Your task to perform on an android device: Do I have any events today? Image 0: 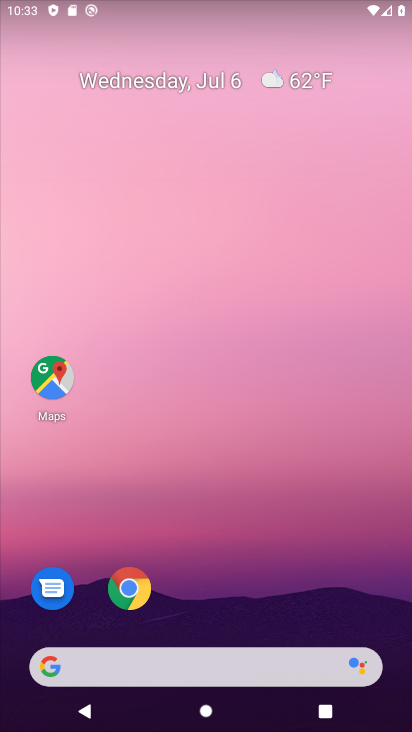
Step 0: drag from (343, 604) to (319, 101)
Your task to perform on an android device: Do I have any events today? Image 1: 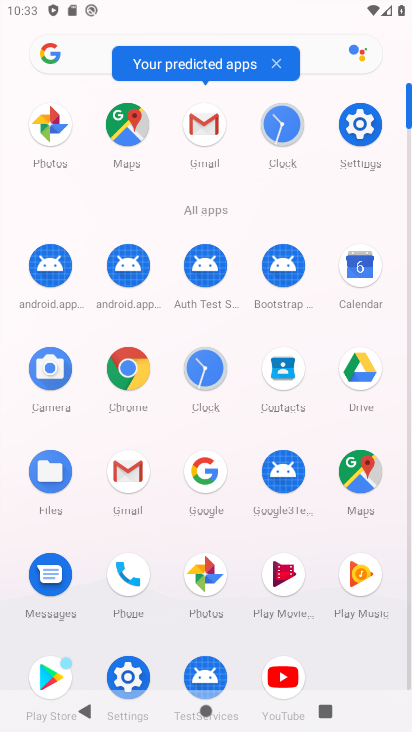
Step 1: click (359, 271)
Your task to perform on an android device: Do I have any events today? Image 2: 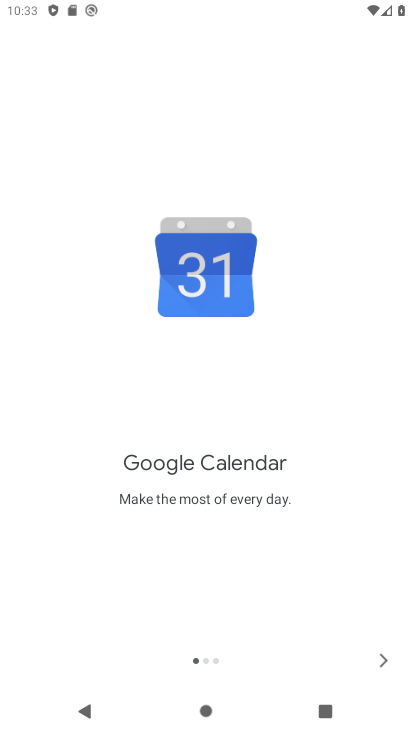
Step 2: click (382, 658)
Your task to perform on an android device: Do I have any events today? Image 3: 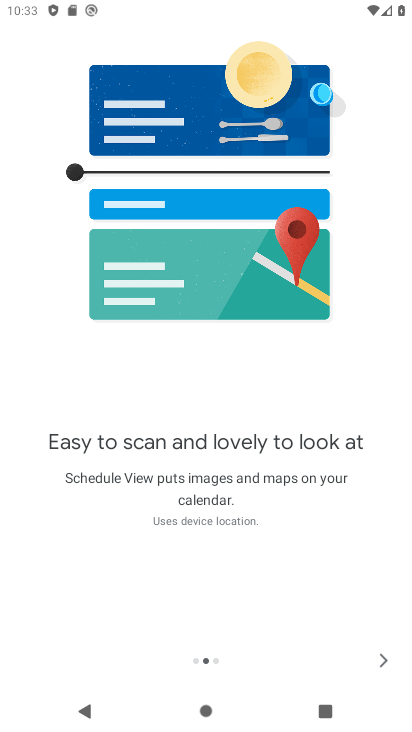
Step 3: click (378, 659)
Your task to perform on an android device: Do I have any events today? Image 4: 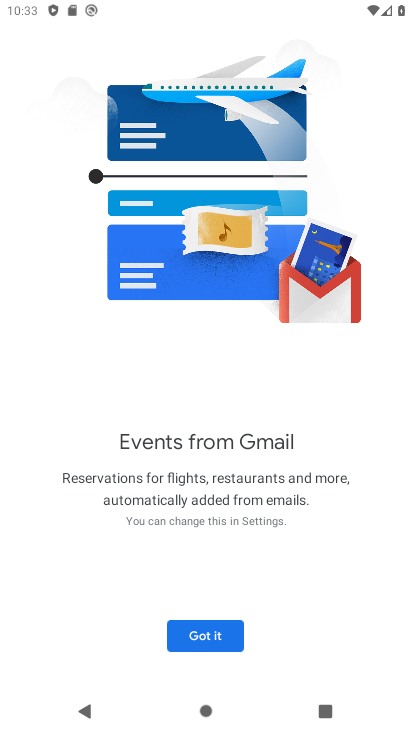
Step 4: click (203, 638)
Your task to perform on an android device: Do I have any events today? Image 5: 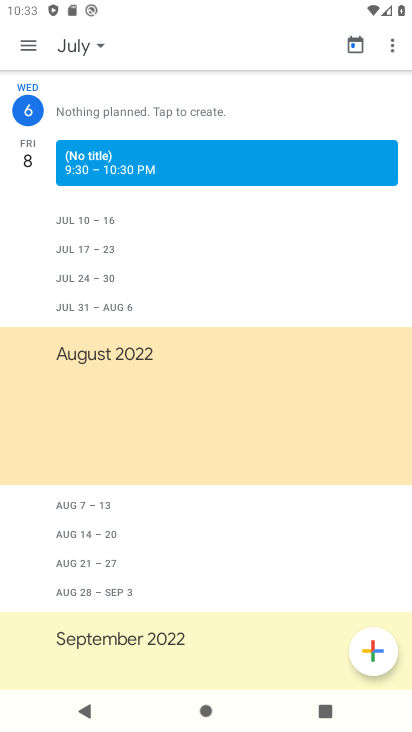
Step 5: click (32, 47)
Your task to perform on an android device: Do I have any events today? Image 6: 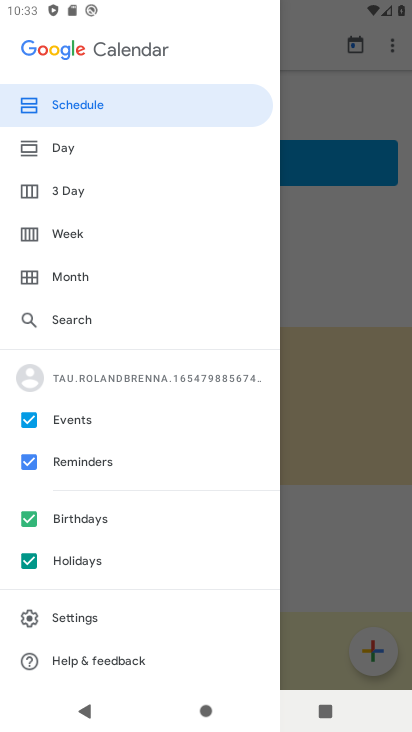
Step 6: click (61, 153)
Your task to perform on an android device: Do I have any events today? Image 7: 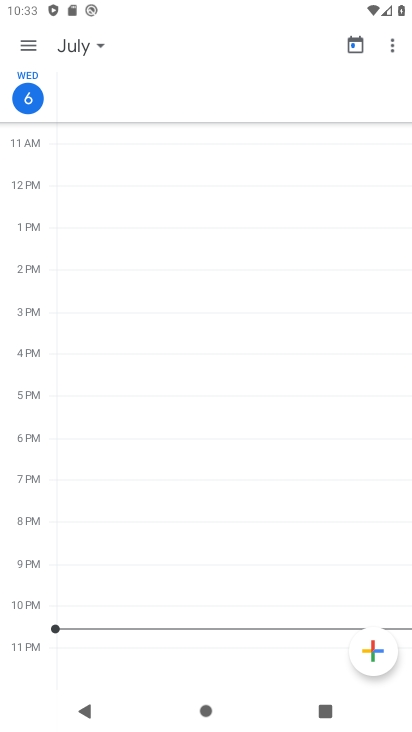
Step 7: task complete